Your task to perform on an android device: When is my next meeting? Image 0: 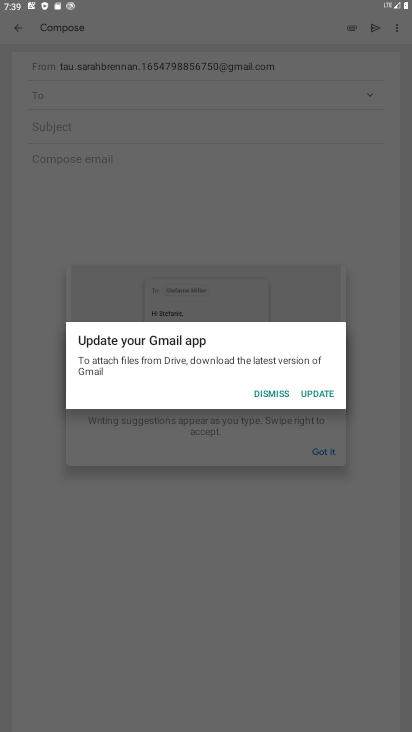
Step 0: press home button
Your task to perform on an android device: When is my next meeting? Image 1: 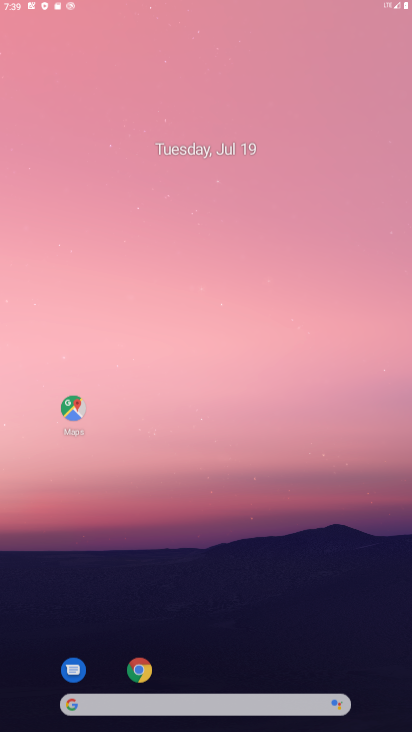
Step 1: drag from (399, 693) to (240, 32)
Your task to perform on an android device: When is my next meeting? Image 2: 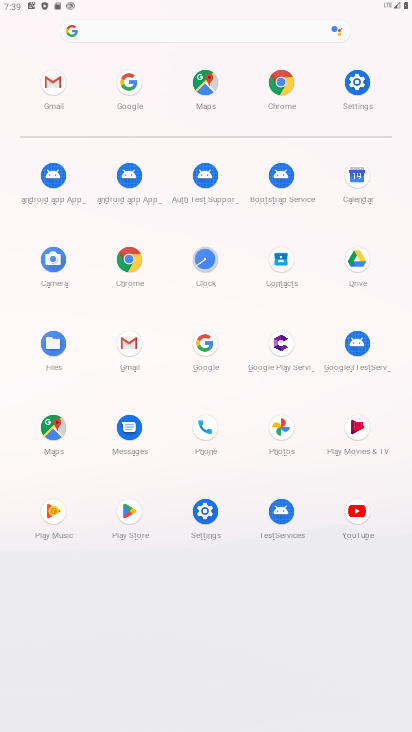
Step 2: click (354, 185)
Your task to perform on an android device: When is my next meeting? Image 3: 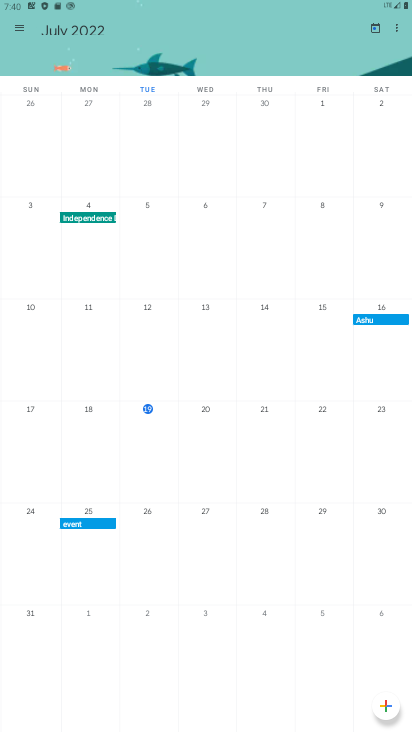
Step 3: task complete